Your task to perform on an android device: Show me popular games on the Play Store Image 0: 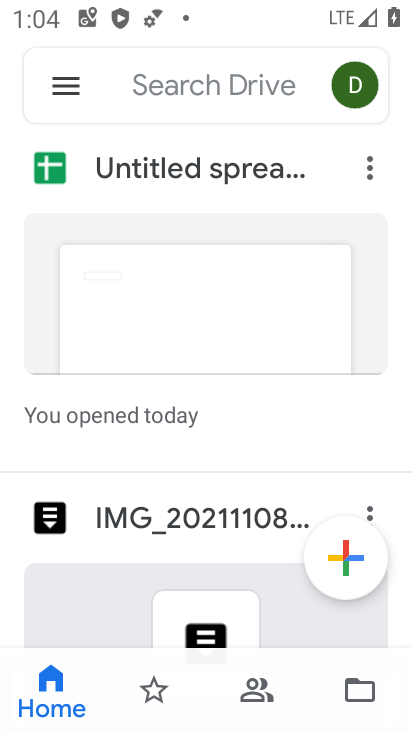
Step 0: press home button
Your task to perform on an android device: Show me popular games on the Play Store Image 1: 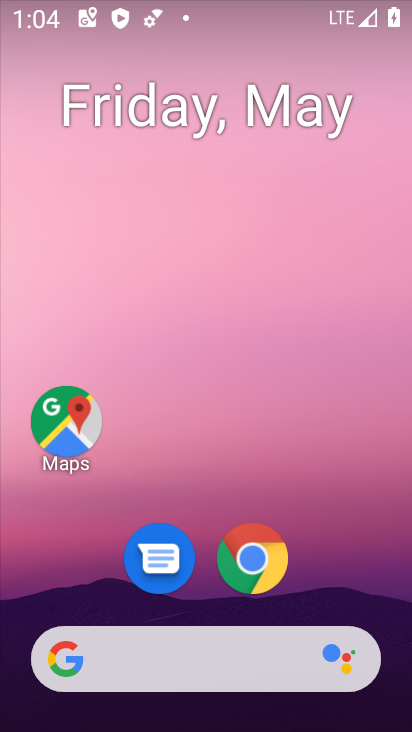
Step 1: drag from (390, 610) to (216, 114)
Your task to perform on an android device: Show me popular games on the Play Store Image 2: 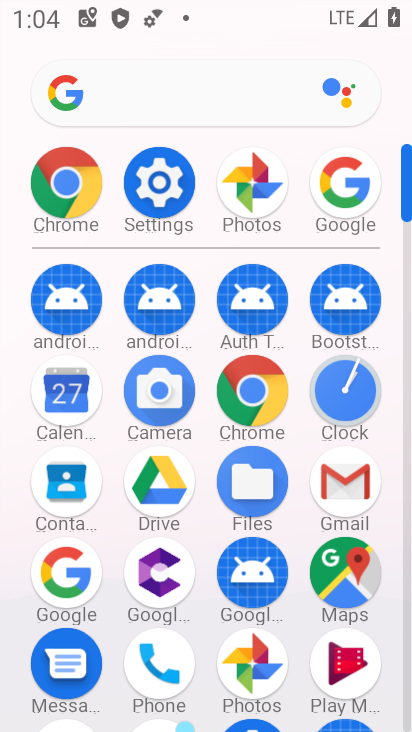
Step 2: click (409, 718)
Your task to perform on an android device: Show me popular games on the Play Store Image 3: 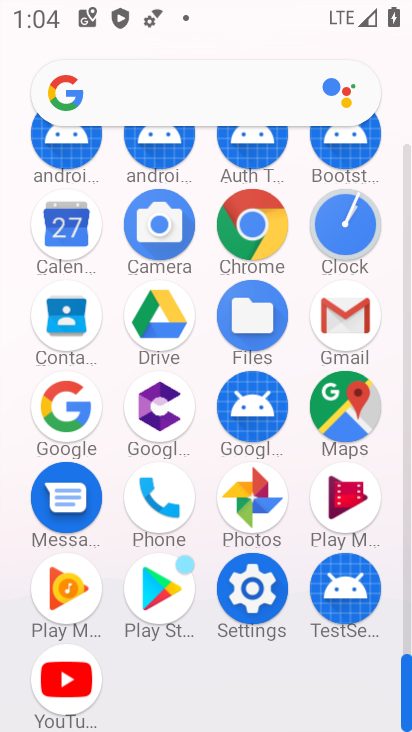
Step 3: click (161, 583)
Your task to perform on an android device: Show me popular games on the Play Store Image 4: 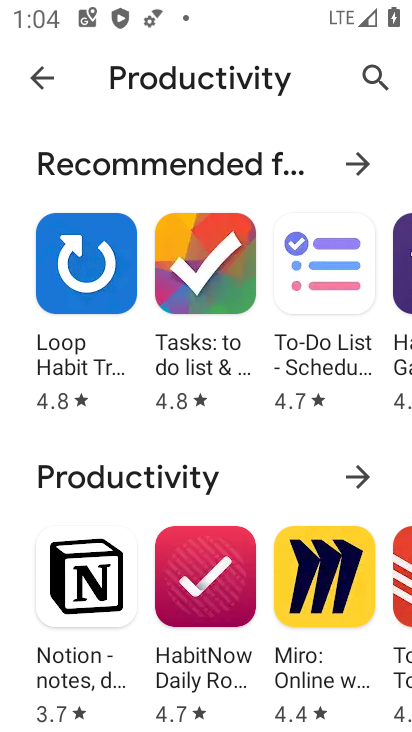
Step 4: click (38, 71)
Your task to perform on an android device: Show me popular games on the Play Store Image 5: 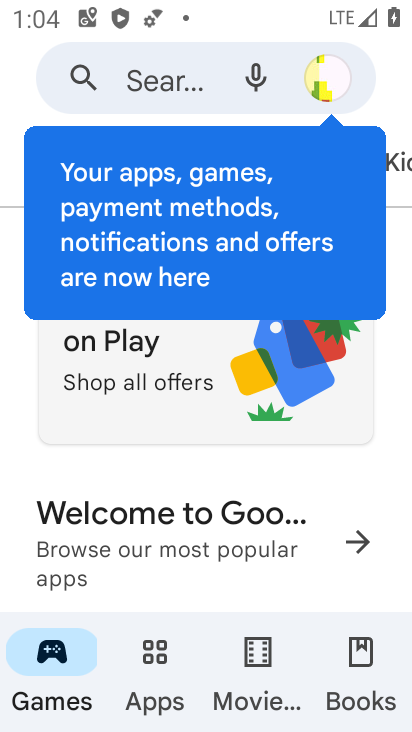
Step 5: click (234, 542)
Your task to perform on an android device: Show me popular games on the Play Store Image 6: 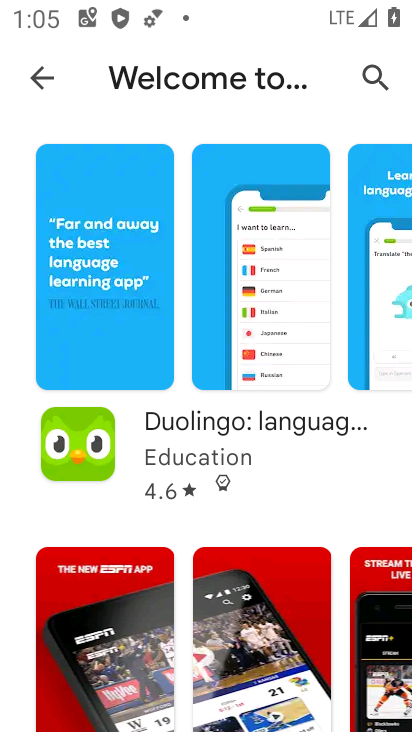
Step 6: task complete